Your task to perform on an android device: toggle notifications settings in the gmail app Image 0: 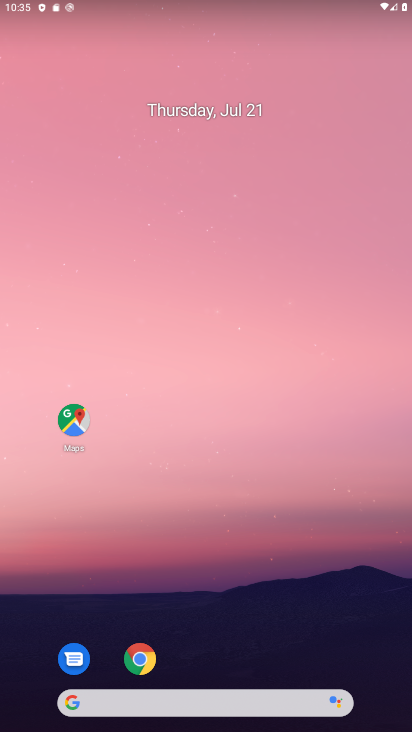
Step 0: drag from (166, 728) to (163, 94)
Your task to perform on an android device: toggle notifications settings in the gmail app Image 1: 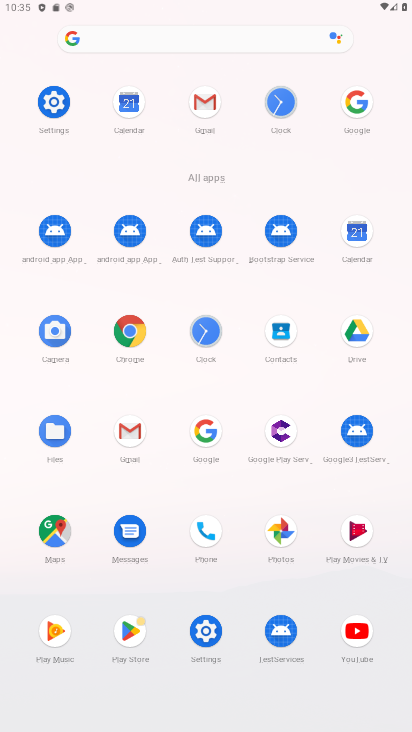
Step 1: click (130, 428)
Your task to perform on an android device: toggle notifications settings in the gmail app Image 2: 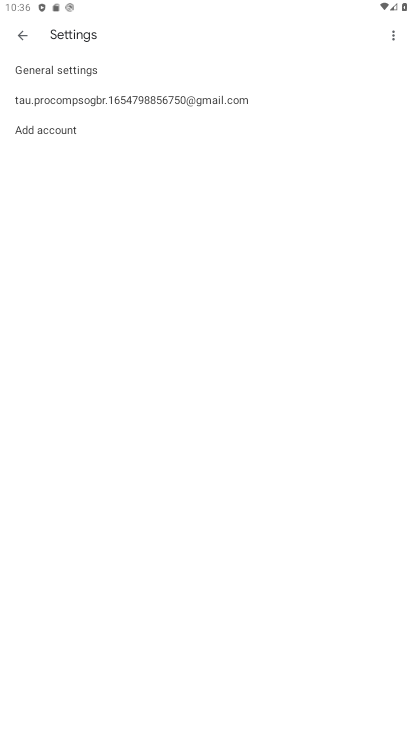
Step 2: click (126, 101)
Your task to perform on an android device: toggle notifications settings in the gmail app Image 3: 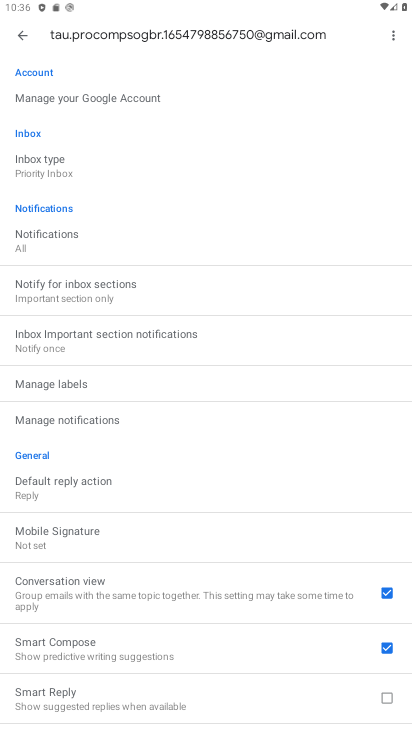
Step 3: click (47, 234)
Your task to perform on an android device: toggle notifications settings in the gmail app Image 4: 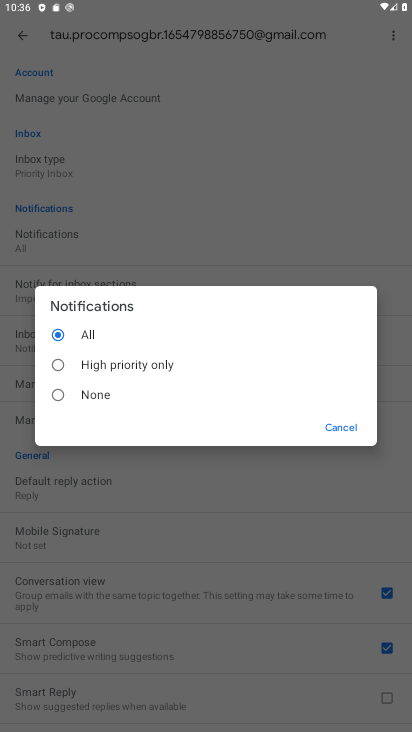
Step 4: click (62, 393)
Your task to perform on an android device: toggle notifications settings in the gmail app Image 5: 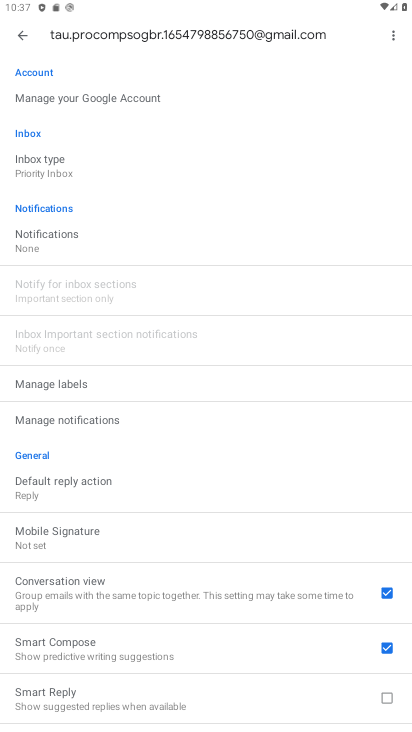
Step 5: task complete